Your task to perform on an android device: allow cookies in the chrome app Image 0: 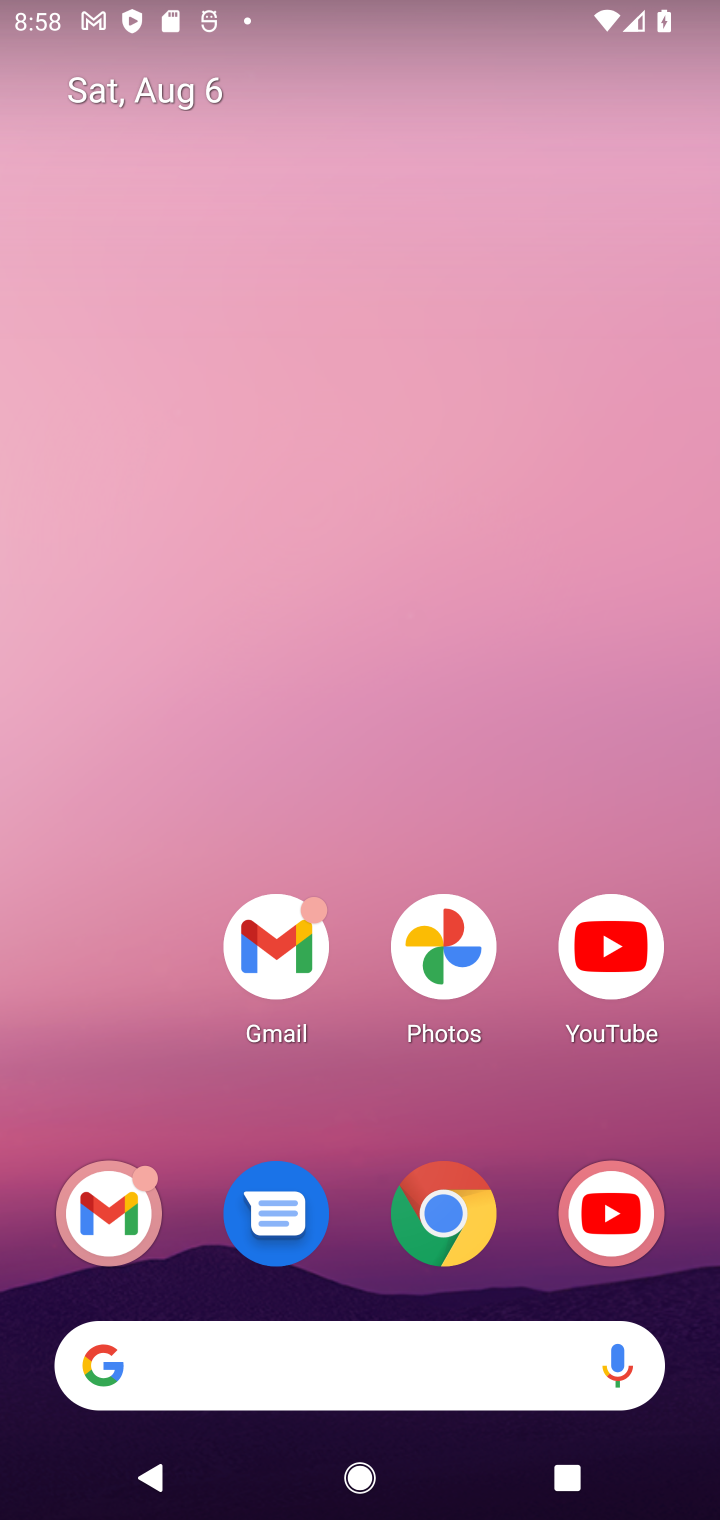
Step 0: drag from (226, 707) to (266, 85)
Your task to perform on an android device: allow cookies in the chrome app Image 1: 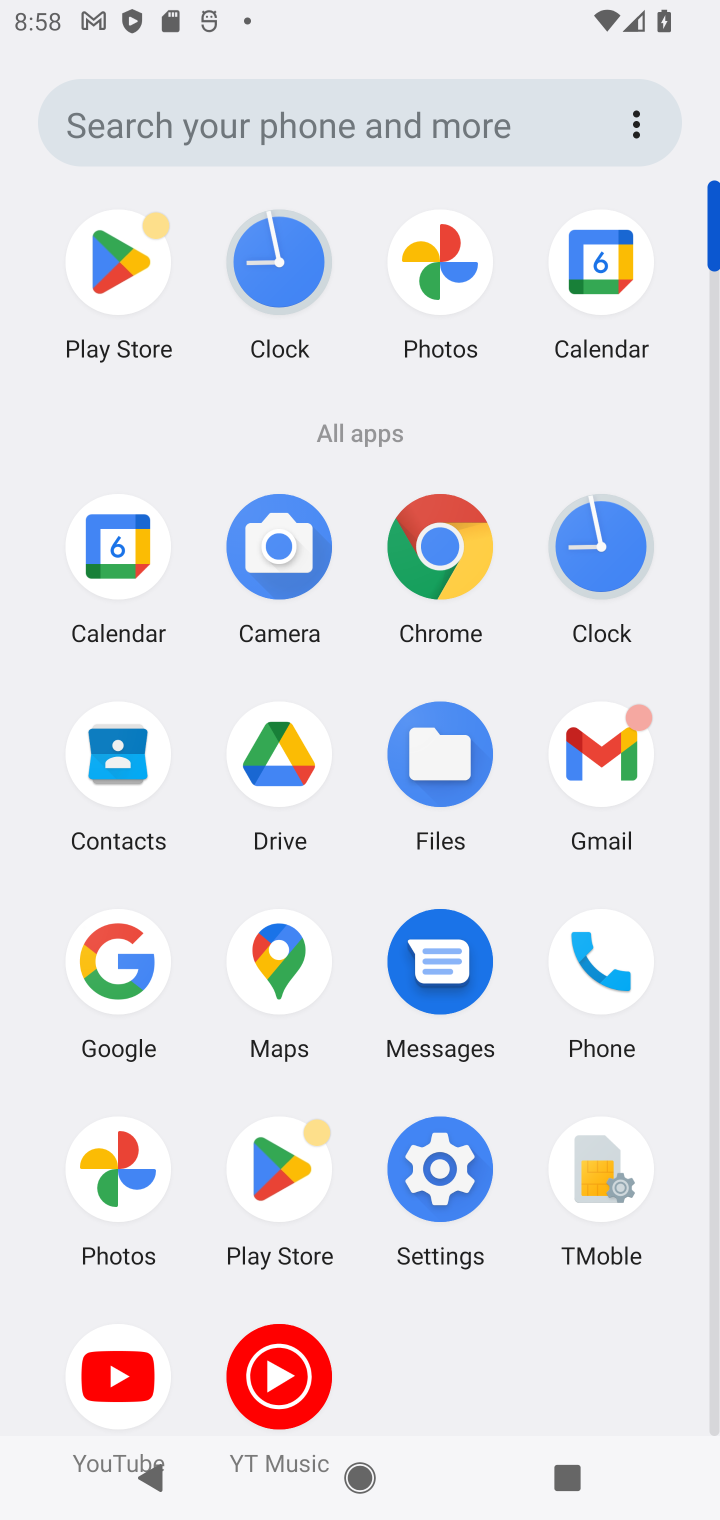
Step 1: click (446, 555)
Your task to perform on an android device: allow cookies in the chrome app Image 2: 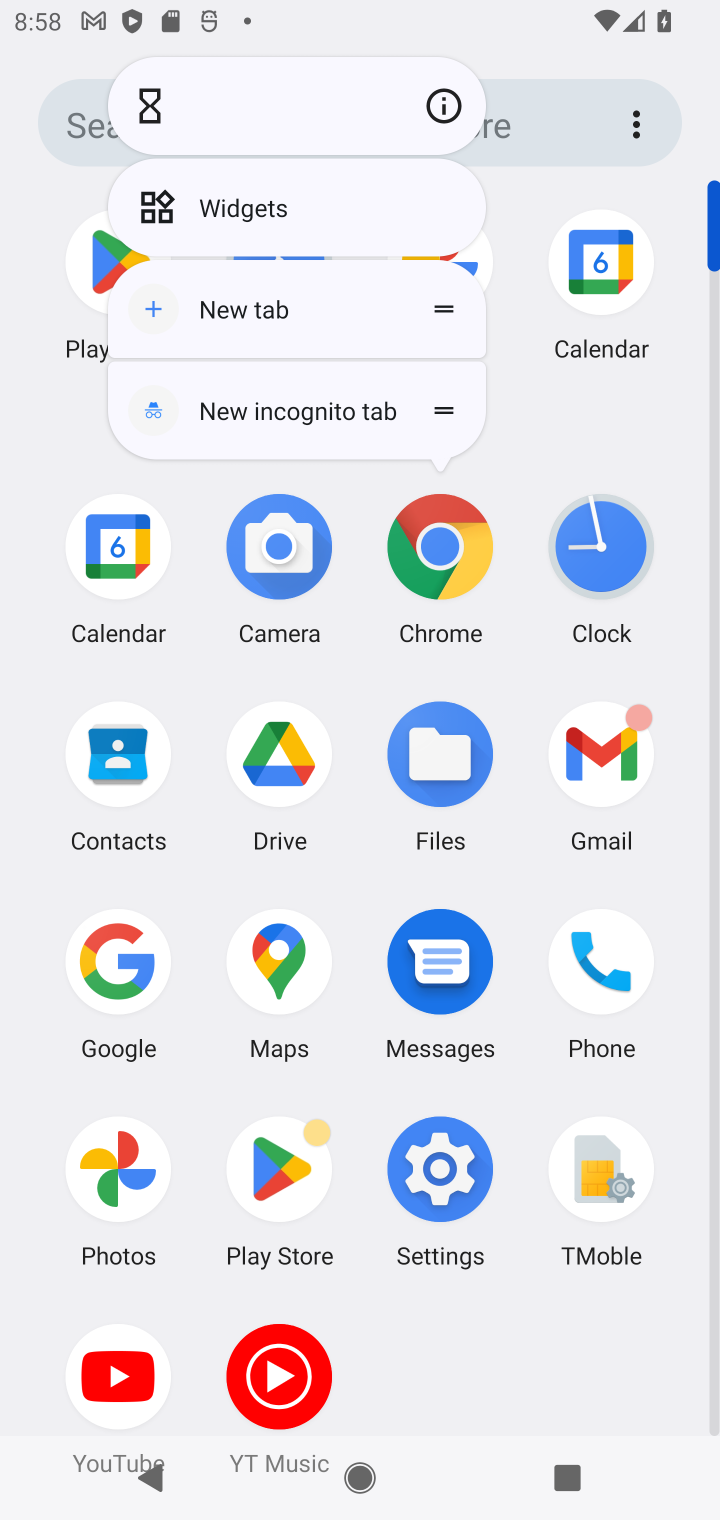
Step 2: click (448, 552)
Your task to perform on an android device: allow cookies in the chrome app Image 3: 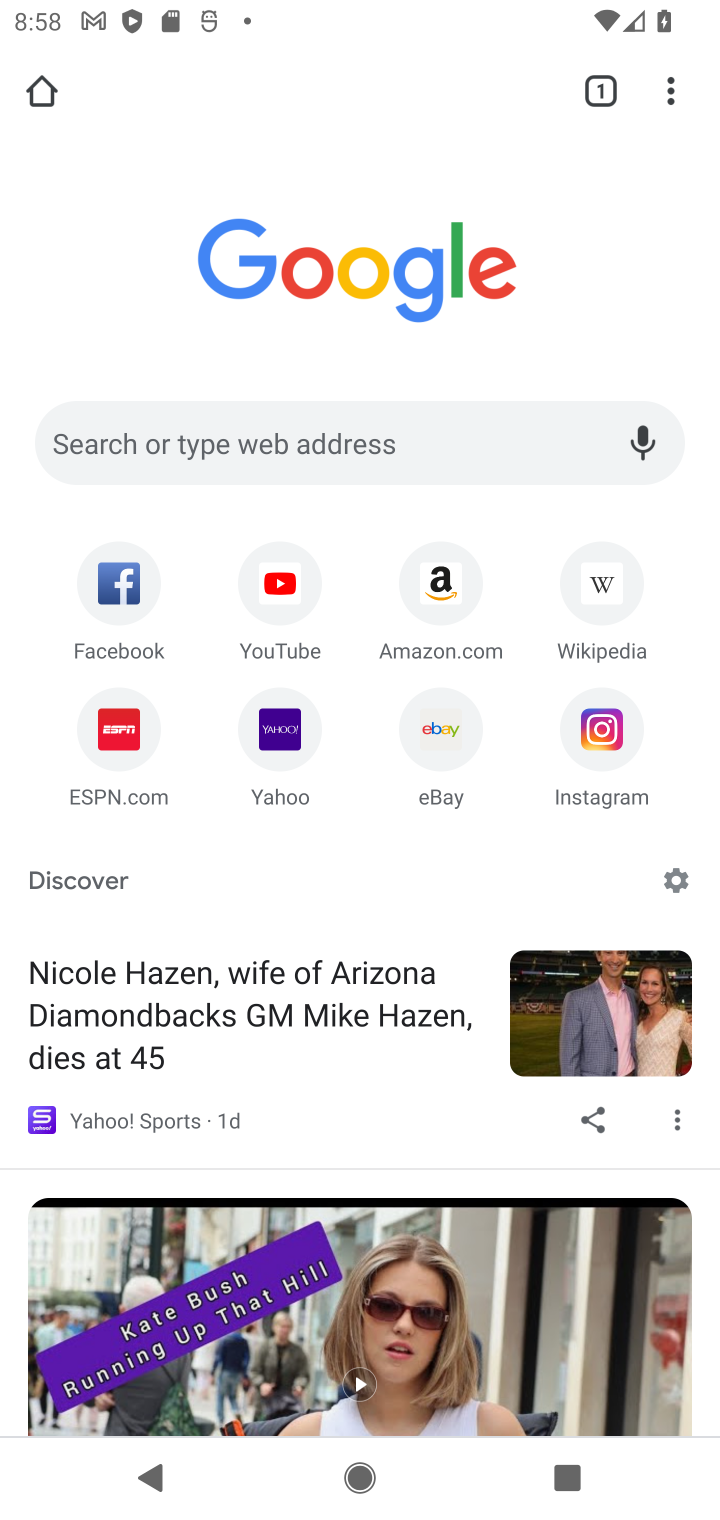
Step 3: drag from (662, 85) to (415, 845)
Your task to perform on an android device: allow cookies in the chrome app Image 4: 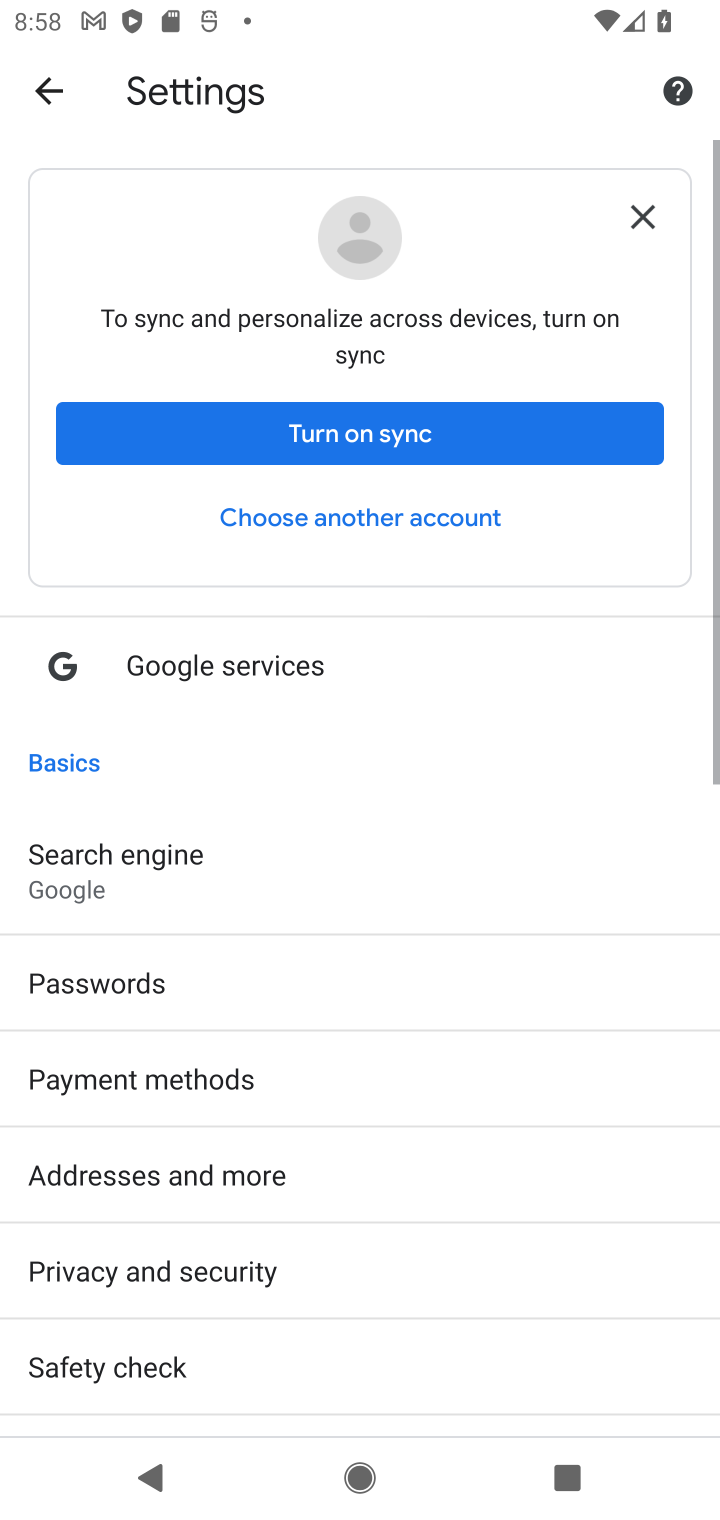
Step 4: drag from (310, 1127) to (461, 325)
Your task to perform on an android device: allow cookies in the chrome app Image 5: 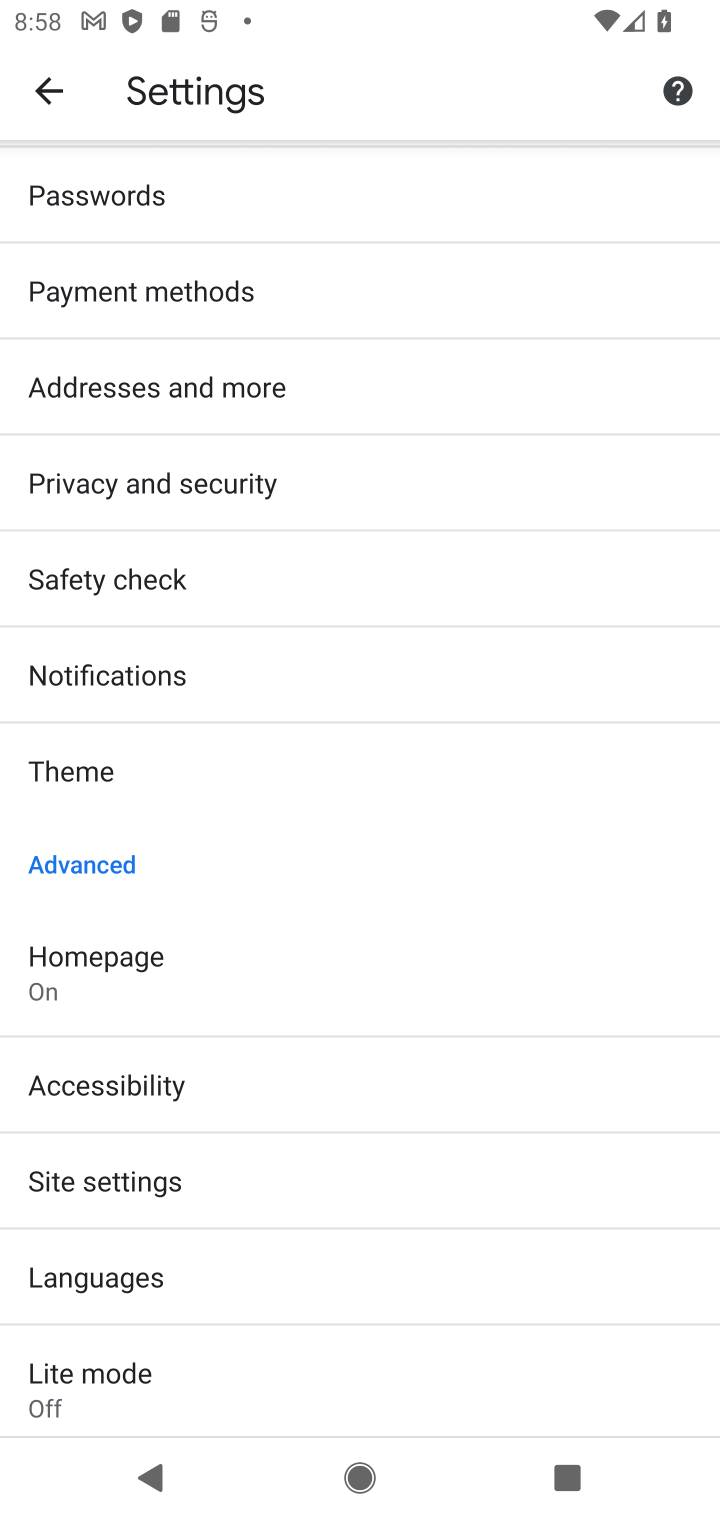
Step 5: click (135, 1189)
Your task to perform on an android device: allow cookies in the chrome app Image 6: 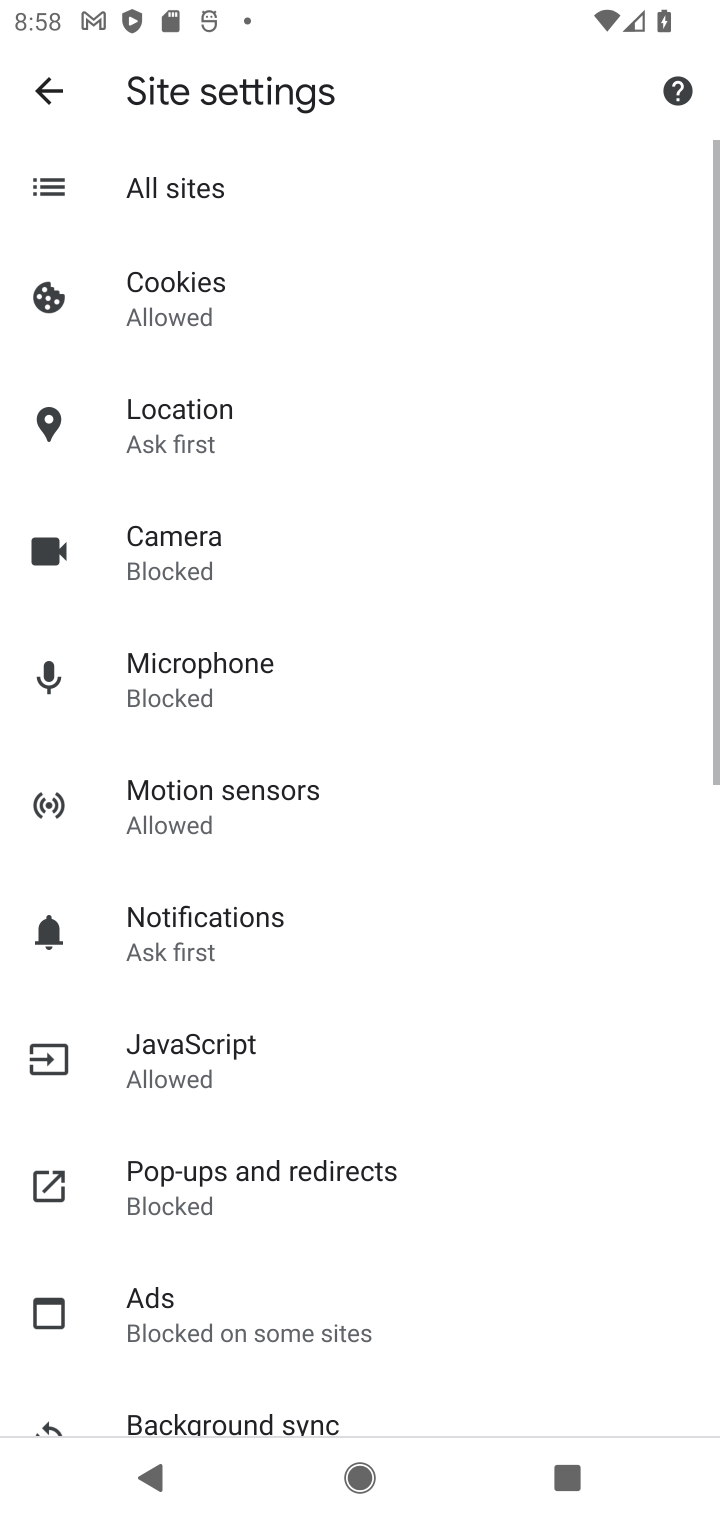
Step 6: click (172, 279)
Your task to perform on an android device: allow cookies in the chrome app Image 7: 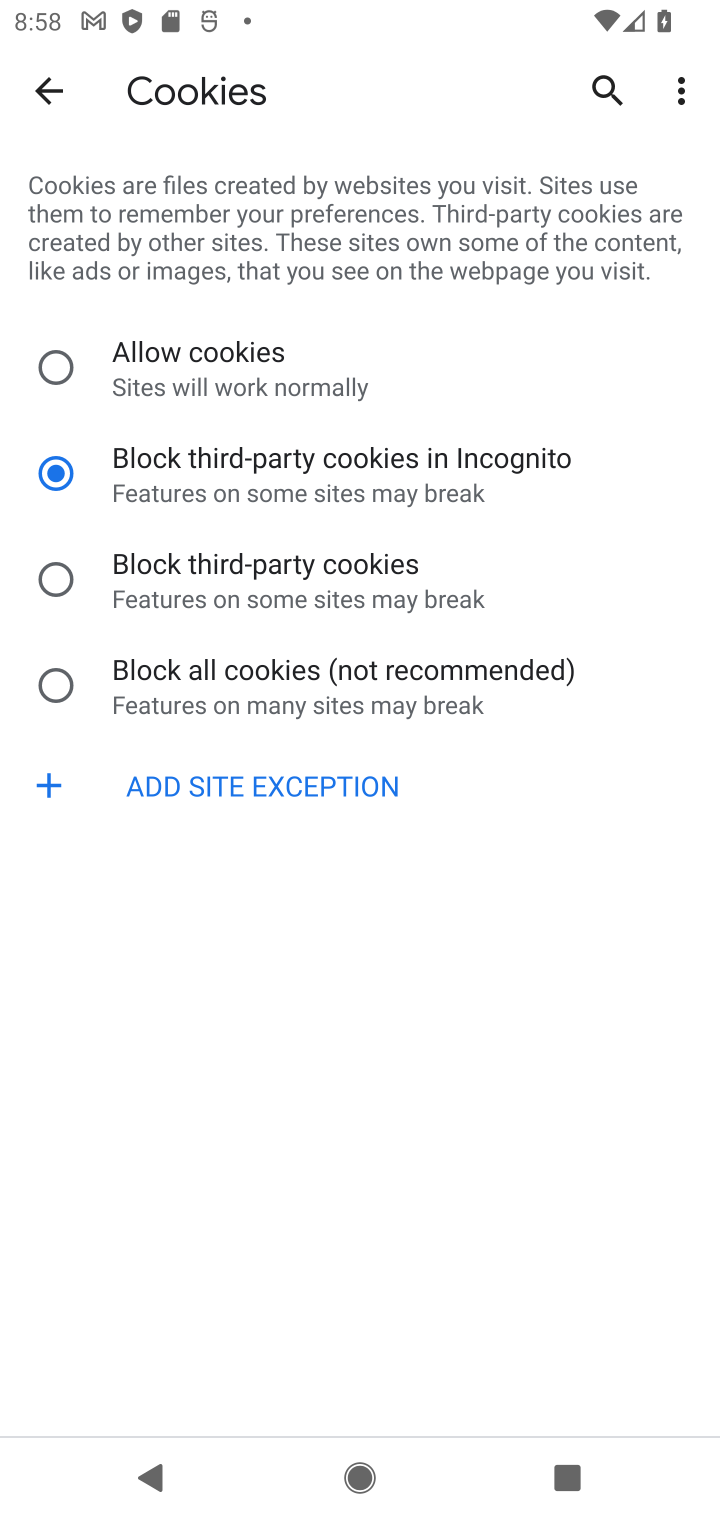
Step 7: task complete